Your task to perform on an android device: turn off improve location accuracy Image 0: 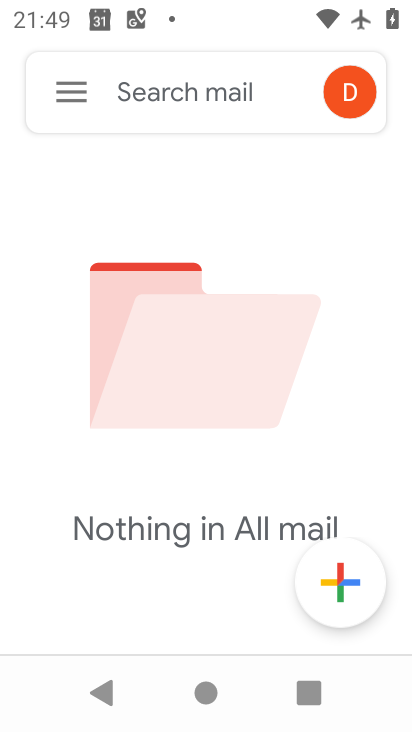
Step 0: press home button
Your task to perform on an android device: turn off improve location accuracy Image 1: 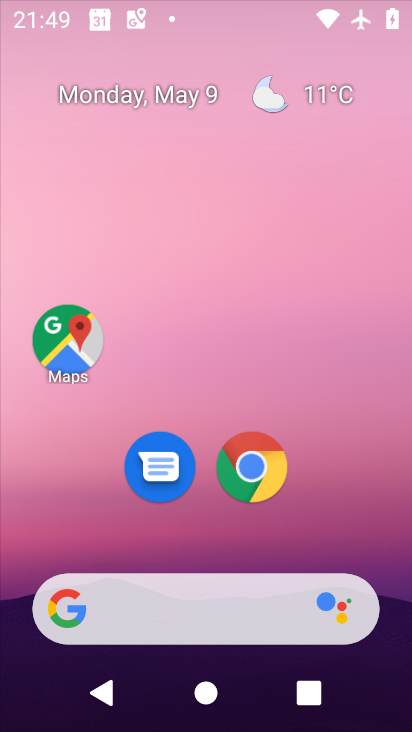
Step 1: drag from (269, 518) to (320, 245)
Your task to perform on an android device: turn off improve location accuracy Image 2: 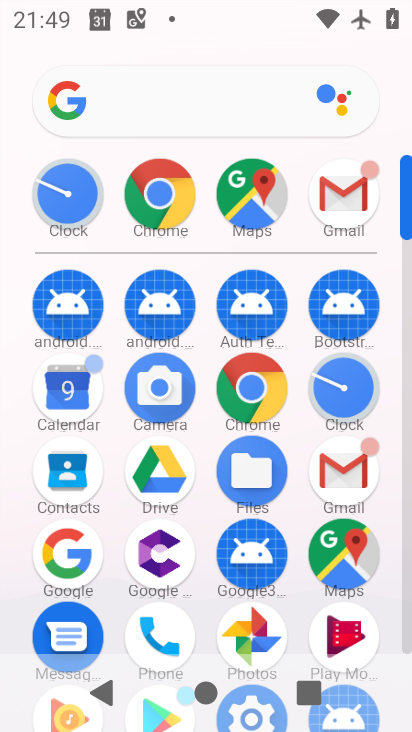
Step 2: drag from (307, 586) to (320, 342)
Your task to perform on an android device: turn off improve location accuracy Image 3: 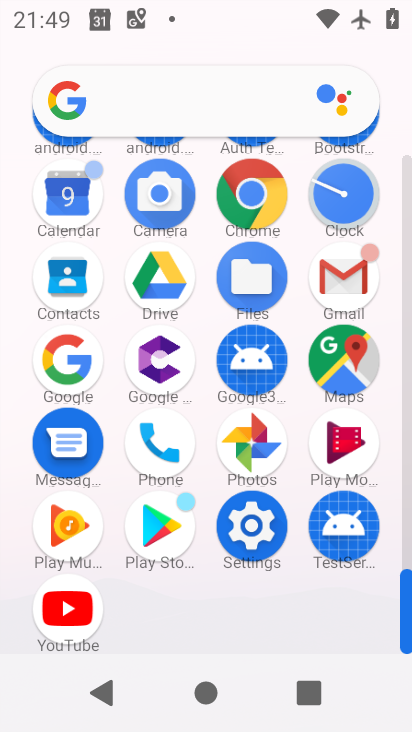
Step 3: click (250, 527)
Your task to perform on an android device: turn off improve location accuracy Image 4: 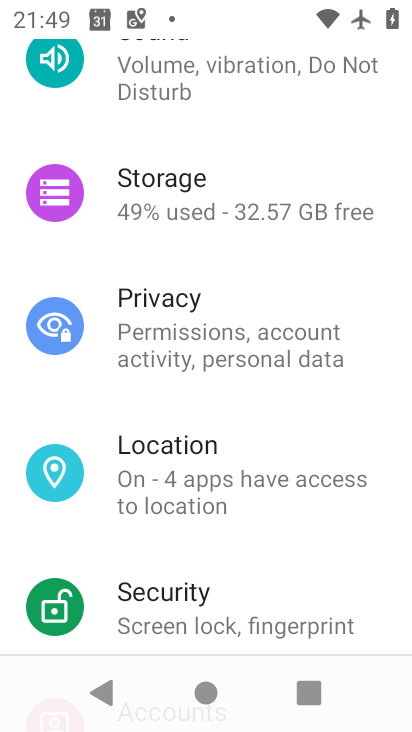
Step 4: click (175, 479)
Your task to perform on an android device: turn off improve location accuracy Image 5: 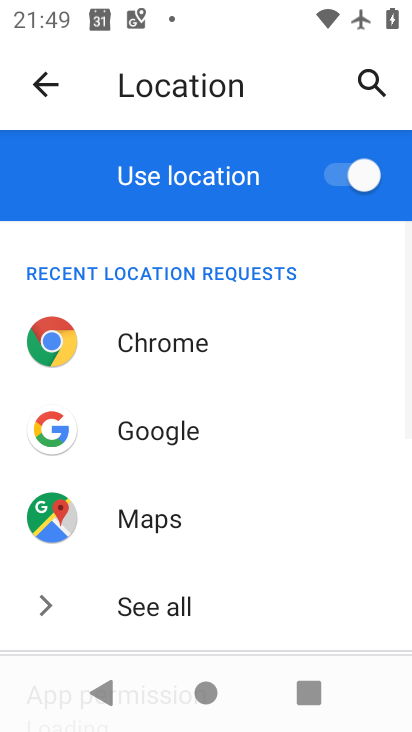
Step 5: drag from (299, 543) to (345, 247)
Your task to perform on an android device: turn off improve location accuracy Image 6: 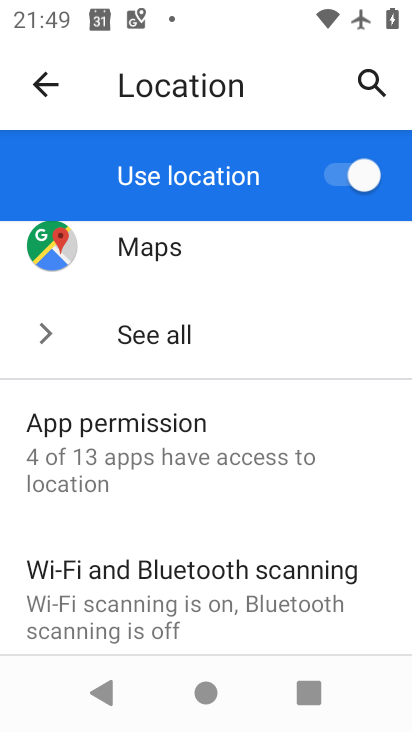
Step 6: drag from (231, 531) to (298, 273)
Your task to perform on an android device: turn off improve location accuracy Image 7: 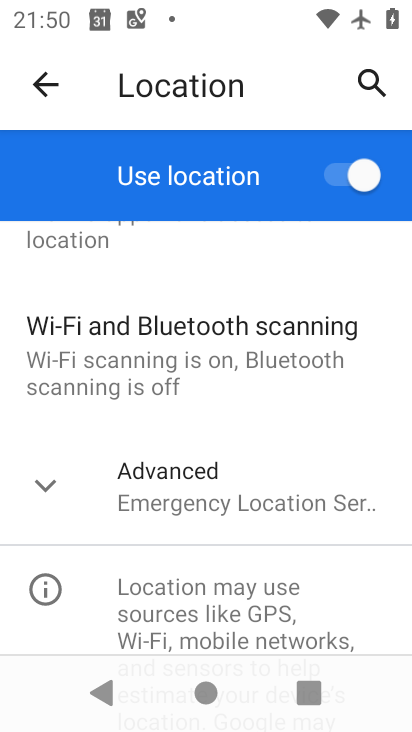
Step 7: click (189, 494)
Your task to perform on an android device: turn off improve location accuracy Image 8: 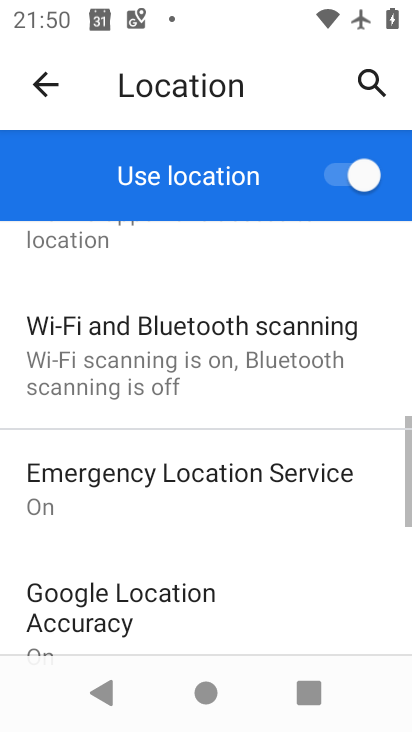
Step 8: drag from (171, 611) to (206, 493)
Your task to perform on an android device: turn off improve location accuracy Image 9: 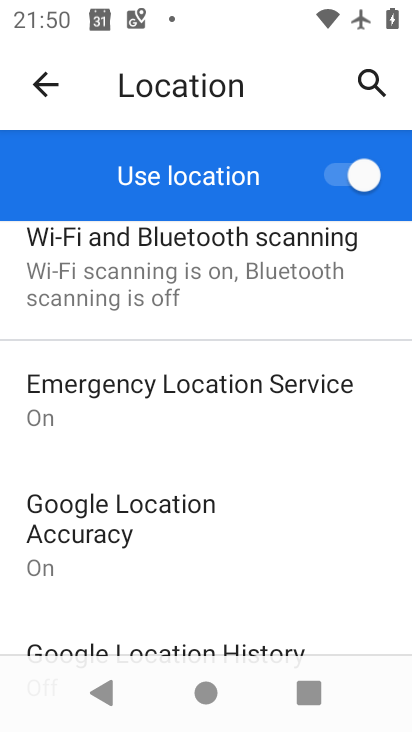
Step 9: click (96, 527)
Your task to perform on an android device: turn off improve location accuracy Image 10: 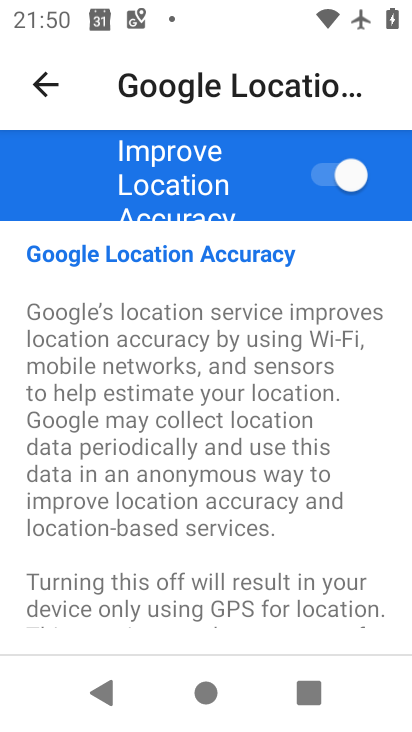
Step 10: click (331, 165)
Your task to perform on an android device: turn off improve location accuracy Image 11: 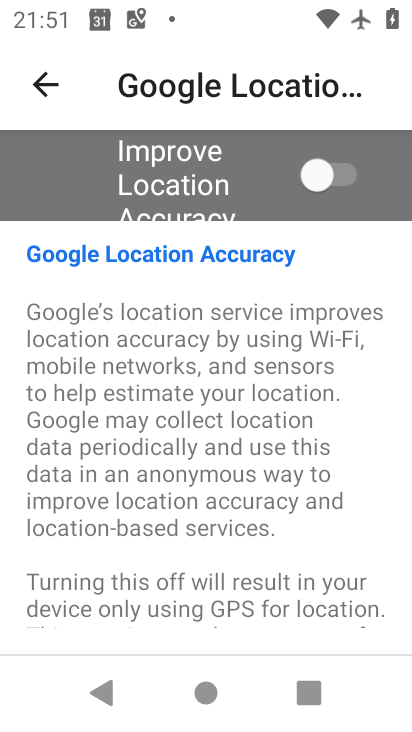
Step 11: task complete